Your task to perform on an android device: How much does a 2x4x8 board cost at Lowes? Image 0: 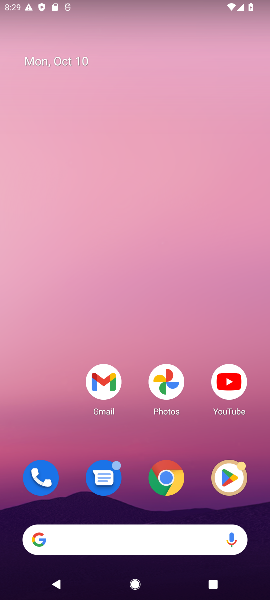
Step 0: click (170, 472)
Your task to perform on an android device: How much does a 2x4x8 board cost at Lowes? Image 1: 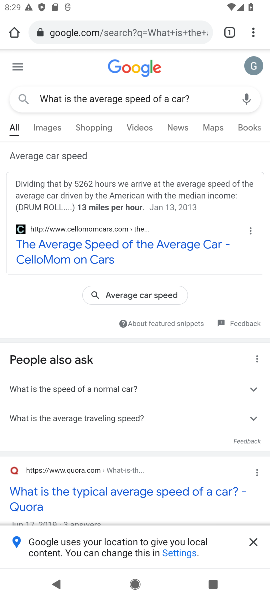
Step 1: click (130, 28)
Your task to perform on an android device: How much does a 2x4x8 board cost at Lowes? Image 2: 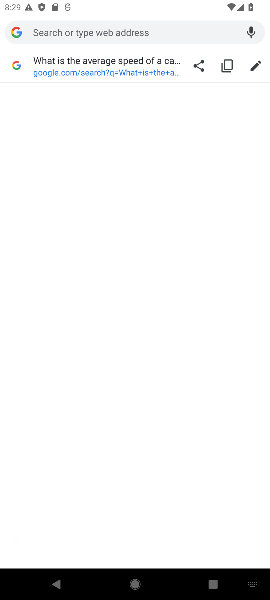
Step 2: type "How much does a 2x4x8 board cost at Lowes?"
Your task to perform on an android device: How much does a 2x4x8 board cost at Lowes? Image 3: 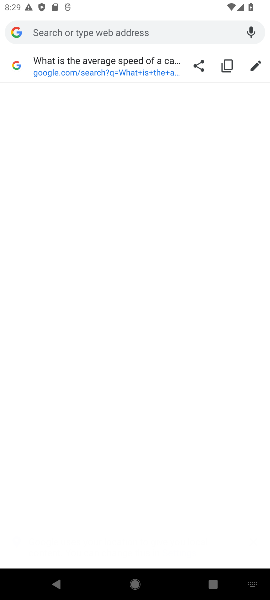
Step 3: click (113, 32)
Your task to perform on an android device: How much does a 2x4x8 board cost at Lowes? Image 4: 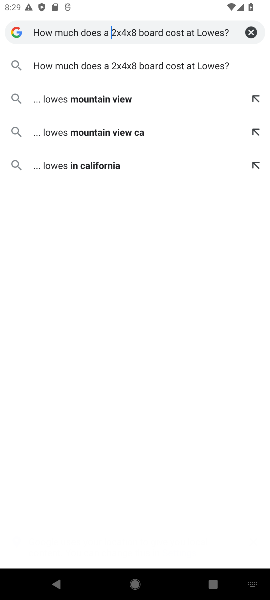
Step 4: click (117, 66)
Your task to perform on an android device: How much does a 2x4x8 board cost at Lowes? Image 5: 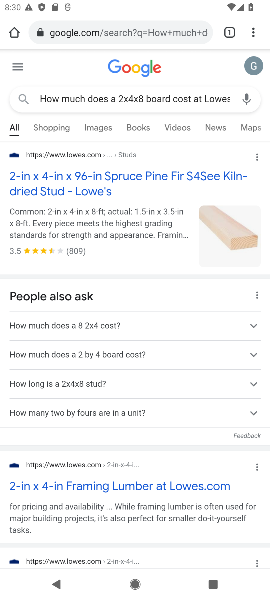
Step 5: click (126, 187)
Your task to perform on an android device: How much does a 2x4x8 board cost at Lowes? Image 6: 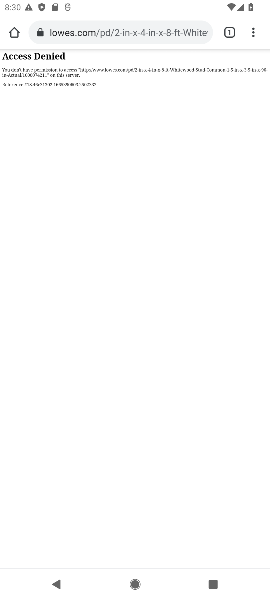
Step 6: task complete